Your task to perform on an android device: Search for pizza restaurants on Maps Image 0: 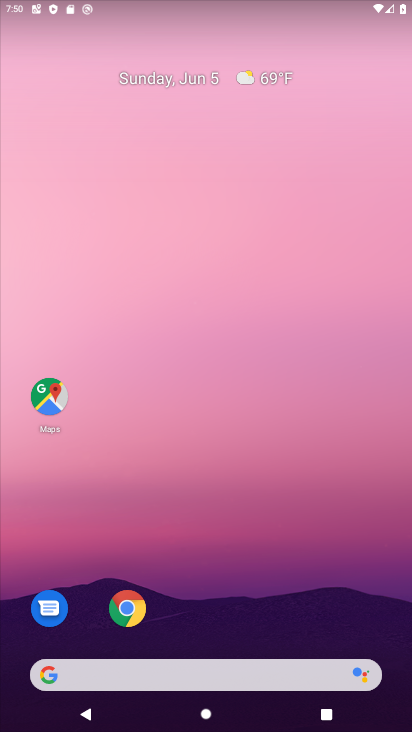
Step 0: click (375, 154)
Your task to perform on an android device: Search for pizza restaurants on Maps Image 1: 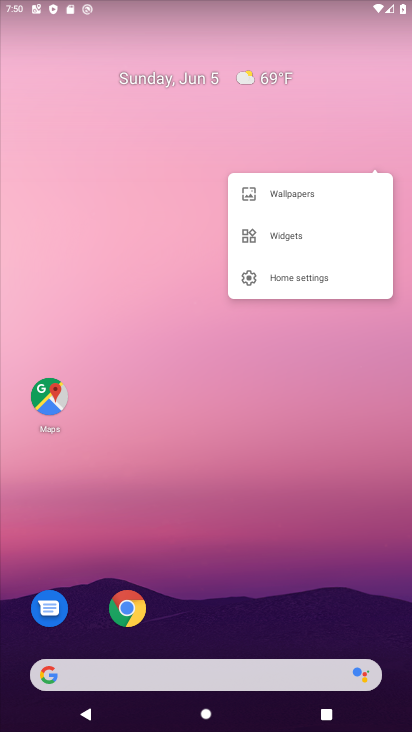
Step 1: click (58, 403)
Your task to perform on an android device: Search for pizza restaurants on Maps Image 2: 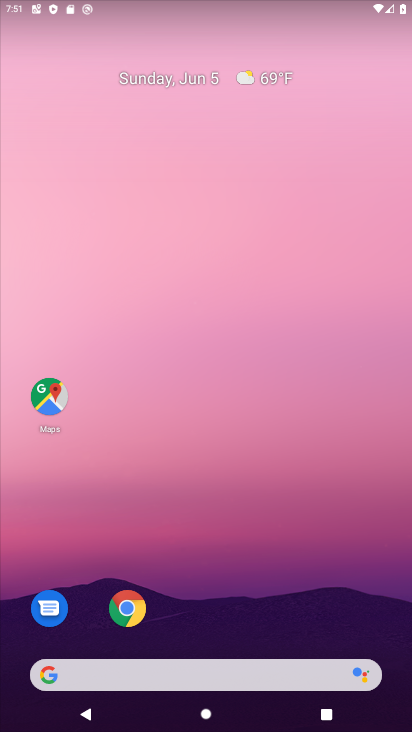
Step 2: click (51, 402)
Your task to perform on an android device: Search for pizza restaurants on Maps Image 3: 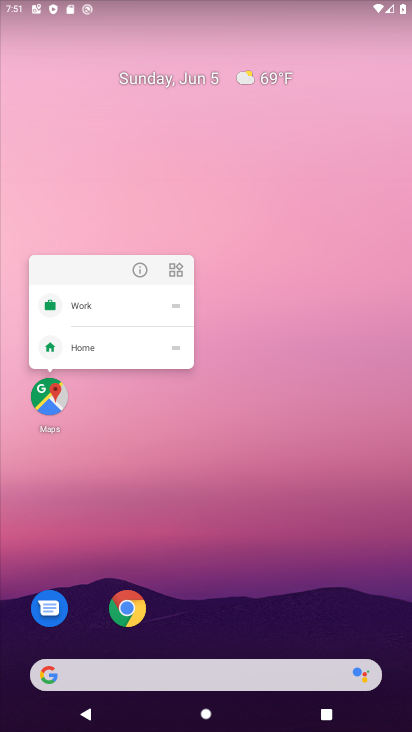
Step 3: click (55, 406)
Your task to perform on an android device: Search for pizza restaurants on Maps Image 4: 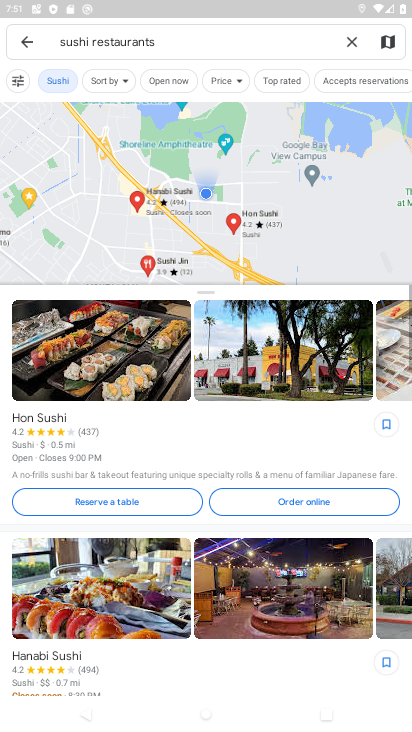
Step 4: click (76, 37)
Your task to perform on an android device: Search for pizza restaurants on Maps Image 5: 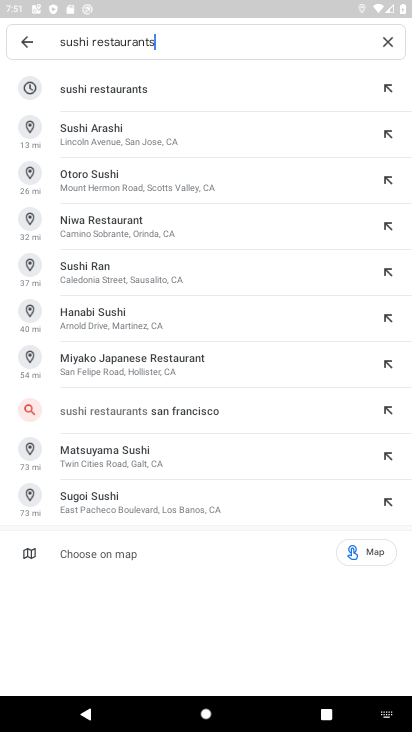
Step 5: click (76, 40)
Your task to perform on an android device: Search for pizza restaurants on Maps Image 6: 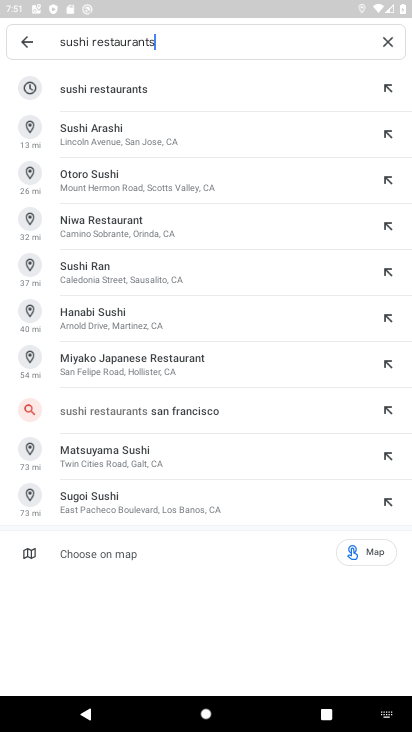
Step 6: click (76, 40)
Your task to perform on an android device: Search for pizza restaurants on Maps Image 7: 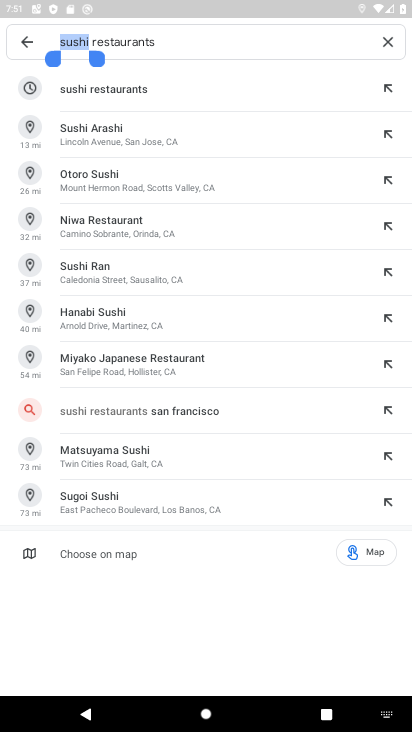
Step 7: click (76, 40)
Your task to perform on an android device: Search for pizza restaurants on Maps Image 8: 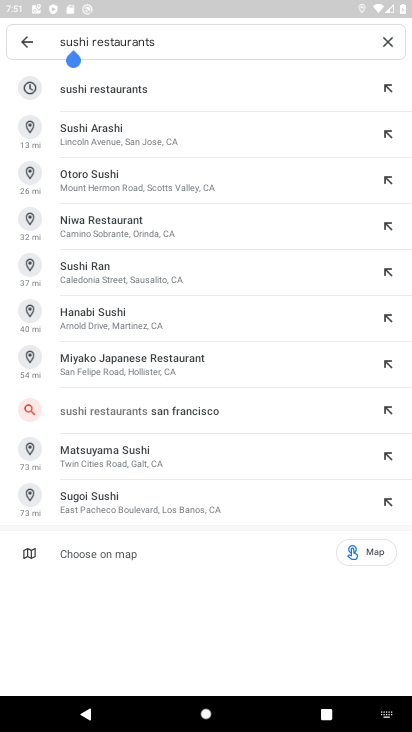
Step 8: click (78, 48)
Your task to perform on an android device: Search for pizza restaurants on Maps Image 9: 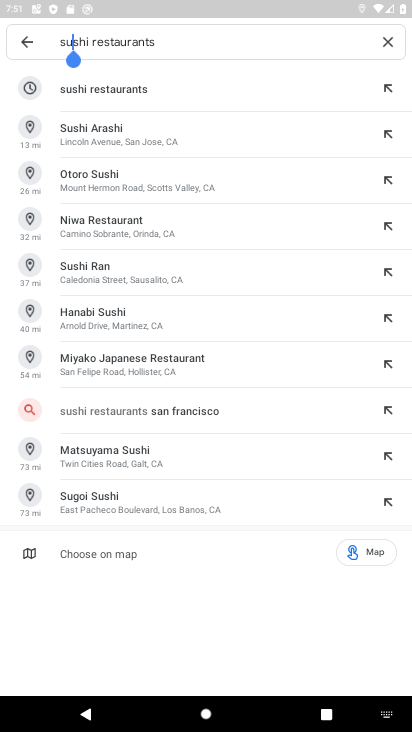
Step 9: click (78, 48)
Your task to perform on an android device: Search for pizza restaurants on Maps Image 10: 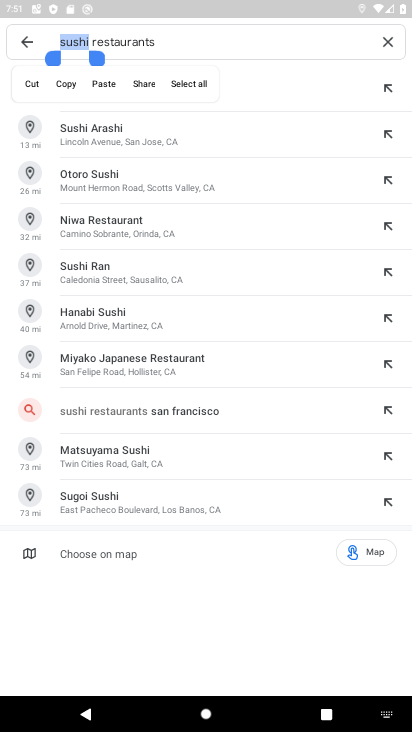
Step 10: type "Pizza "
Your task to perform on an android device: Search for pizza restaurants on Maps Image 11: 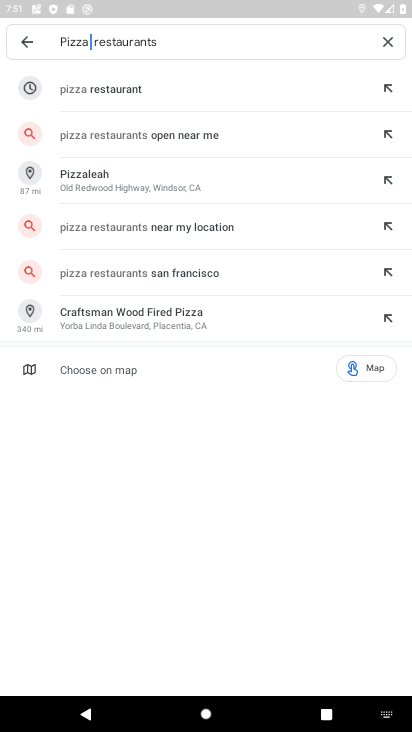
Step 11: click (174, 91)
Your task to perform on an android device: Search for pizza restaurants on Maps Image 12: 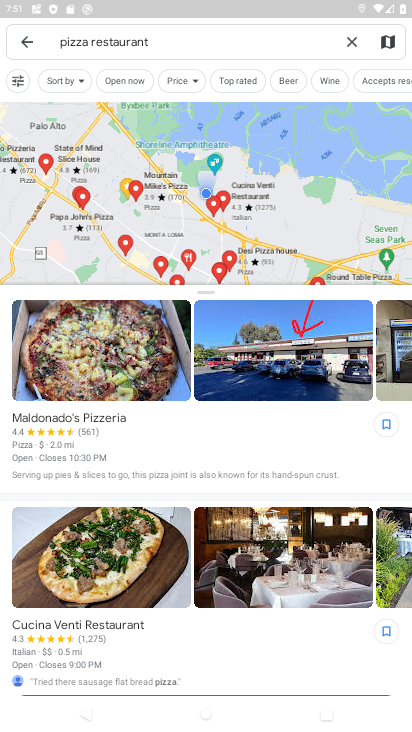
Step 12: task complete